Your task to perform on an android device: Go to location settings Image 0: 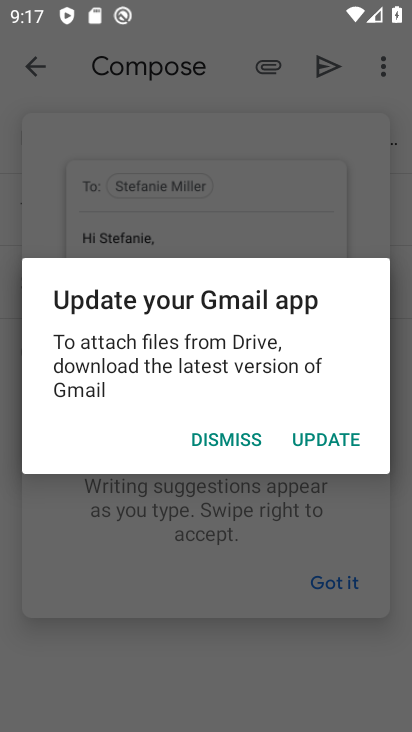
Step 0: press home button
Your task to perform on an android device: Go to location settings Image 1: 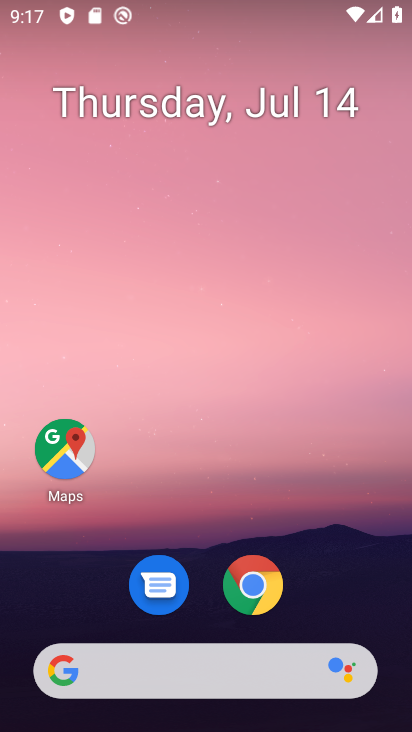
Step 1: drag from (218, 626) to (67, 176)
Your task to perform on an android device: Go to location settings Image 2: 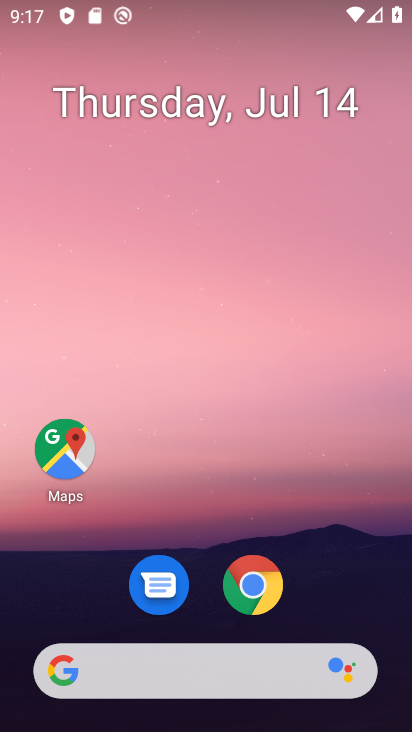
Step 2: click (205, 650)
Your task to perform on an android device: Go to location settings Image 3: 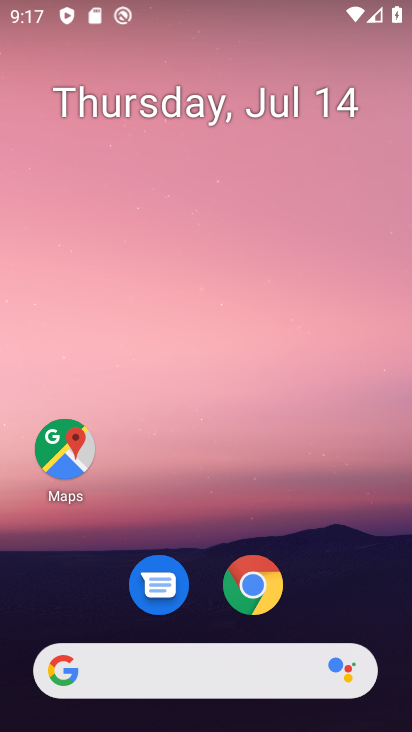
Step 3: drag from (205, 650) to (94, 65)
Your task to perform on an android device: Go to location settings Image 4: 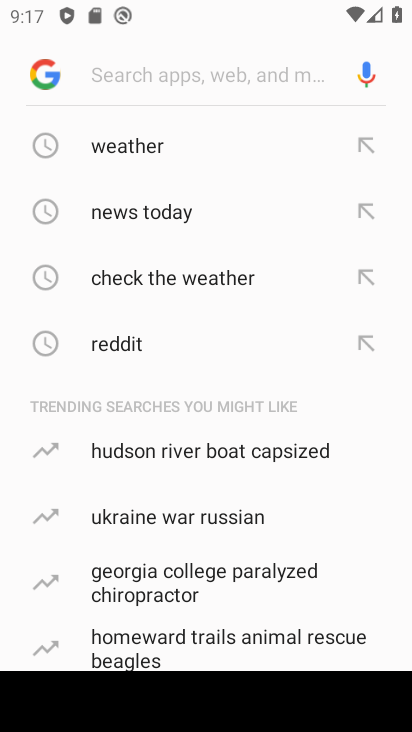
Step 4: press home button
Your task to perform on an android device: Go to location settings Image 5: 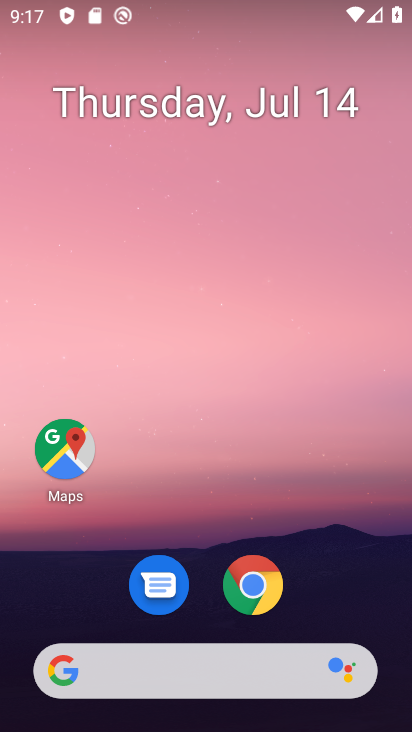
Step 5: drag from (229, 630) to (290, 48)
Your task to perform on an android device: Go to location settings Image 6: 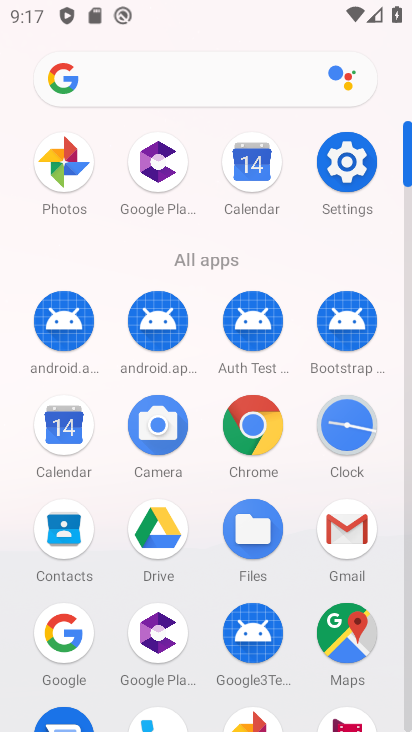
Step 6: click (329, 151)
Your task to perform on an android device: Go to location settings Image 7: 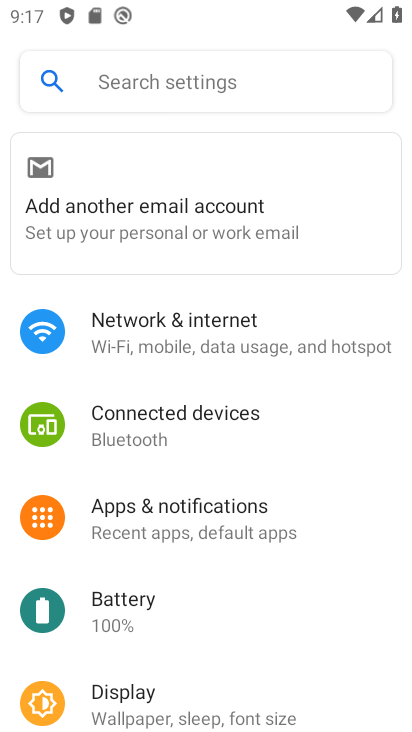
Step 7: drag from (356, 487) to (204, 31)
Your task to perform on an android device: Go to location settings Image 8: 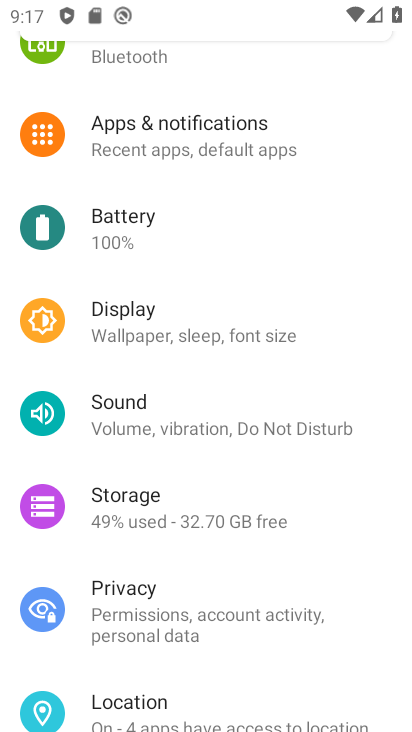
Step 8: click (102, 701)
Your task to perform on an android device: Go to location settings Image 9: 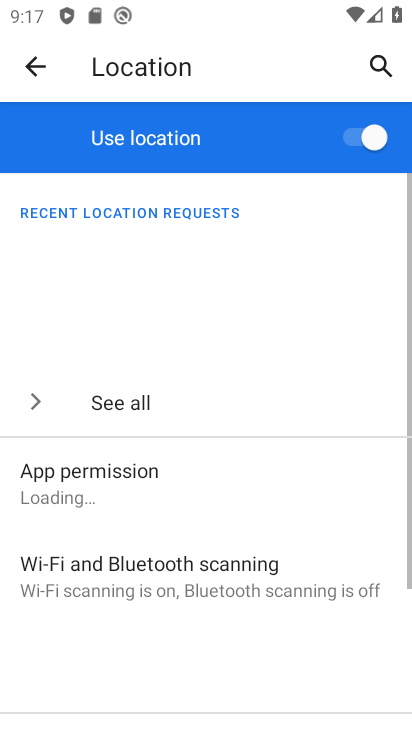
Step 9: task complete